Your task to perform on an android device: Go to accessibility settings Image 0: 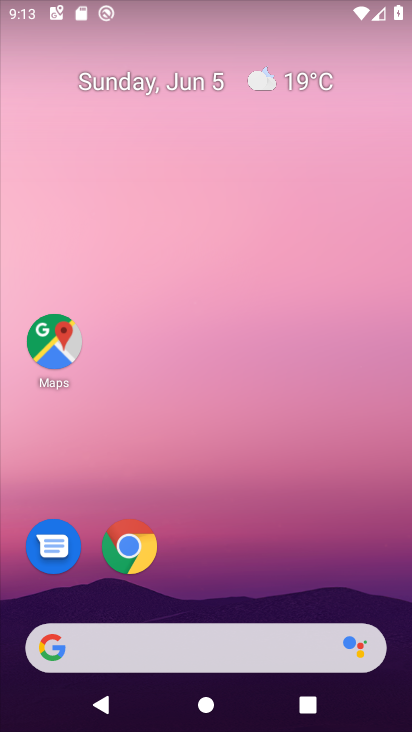
Step 0: drag from (244, 592) to (253, 76)
Your task to perform on an android device: Go to accessibility settings Image 1: 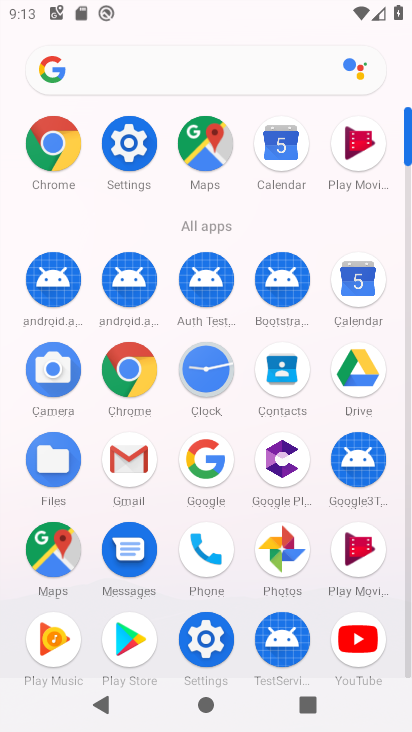
Step 1: click (208, 617)
Your task to perform on an android device: Go to accessibility settings Image 2: 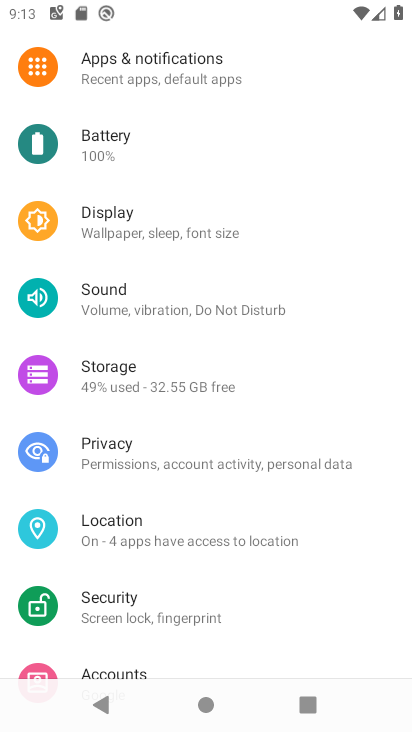
Step 2: drag from (207, 590) to (201, 82)
Your task to perform on an android device: Go to accessibility settings Image 3: 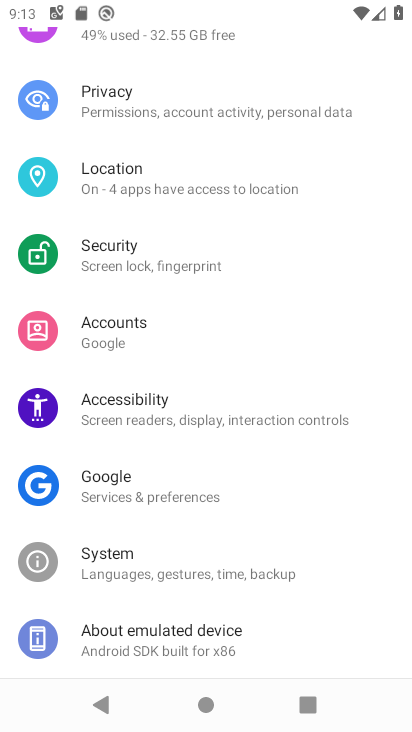
Step 3: click (158, 410)
Your task to perform on an android device: Go to accessibility settings Image 4: 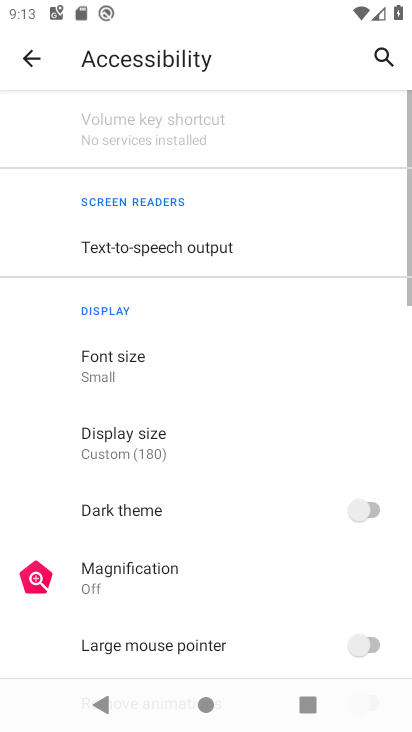
Step 4: task complete